Your task to perform on an android device: Search for Mexican restaurants on Maps Image 0: 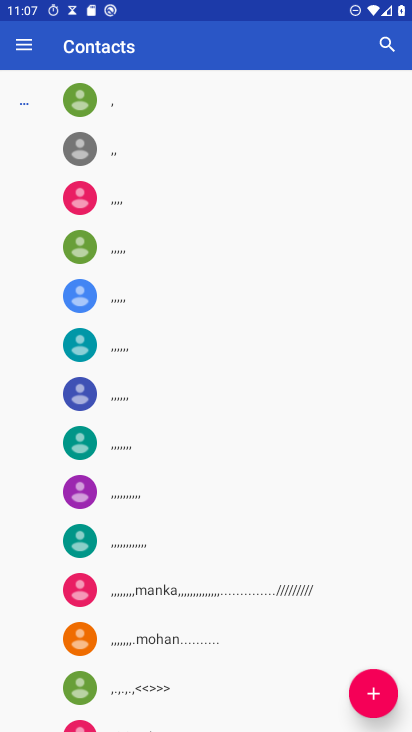
Step 0: press back button
Your task to perform on an android device: Search for Mexican restaurants on Maps Image 1: 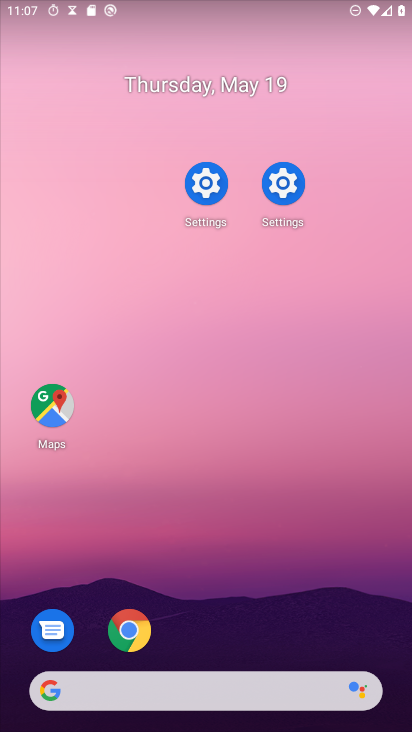
Step 1: drag from (303, 632) to (170, 43)
Your task to perform on an android device: Search for Mexican restaurants on Maps Image 2: 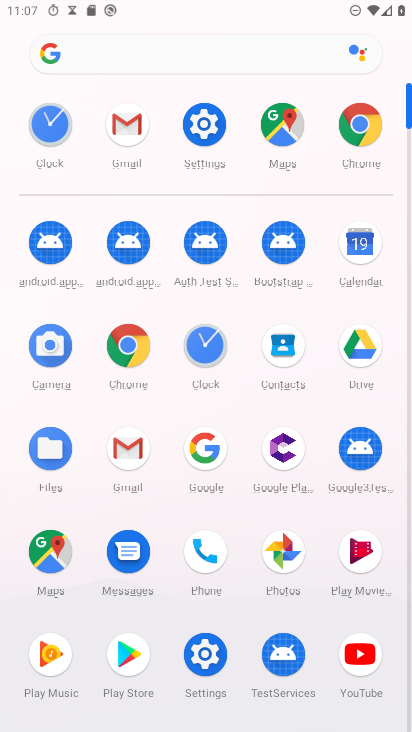
Step 2: click (286, 110)
Your task to perform on an android device: Search for Mexican restaurants on Maps Image 3: 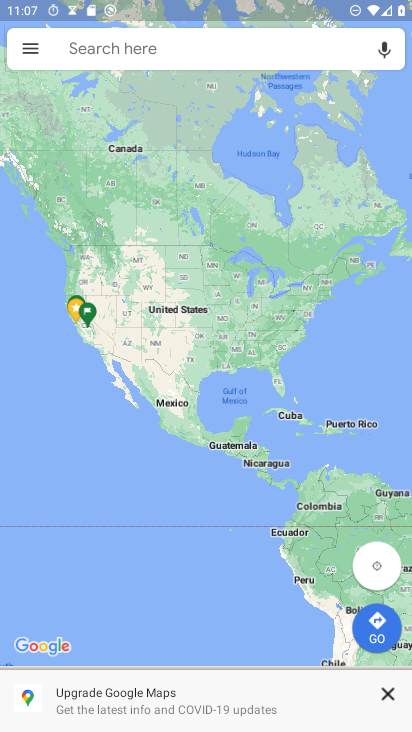
Step 3: click (106, 45)
Your task to perform on an android device: Search for Mexican restaurants on Maps Image 4: 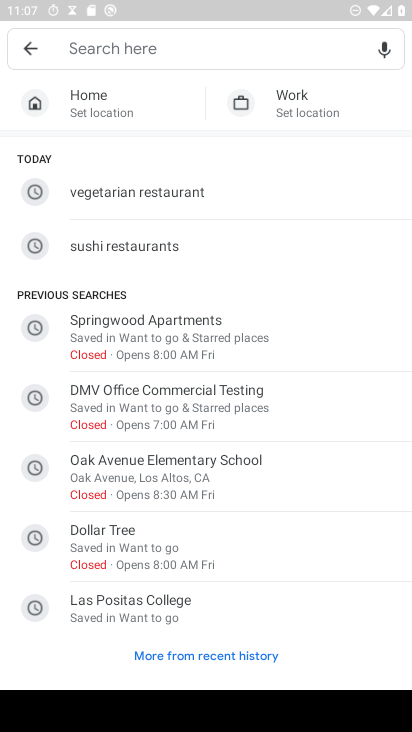
Step 4: type "mexican resturants"
Your task to perform on an android device: Search for Mexican restaurants on Maps Image 5: 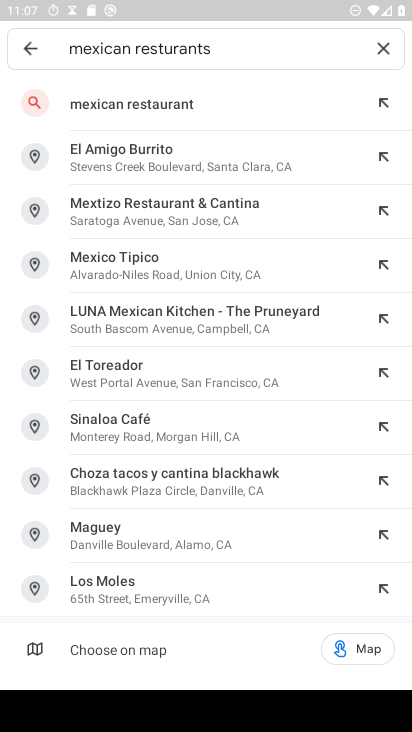
Step 5: click (110, 101)
Your task to perform on an android device: Search for Mexican restaurants on Maps Image 6: 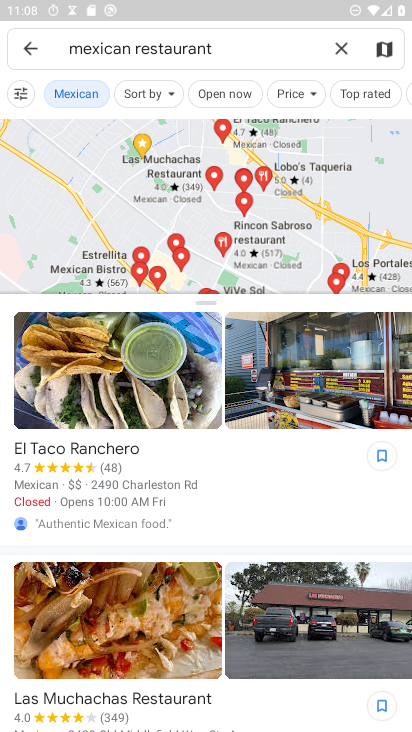
Step 6: task complete